Your task to perform on an android device: see tabs open on other devices in the chrome app Image 0: 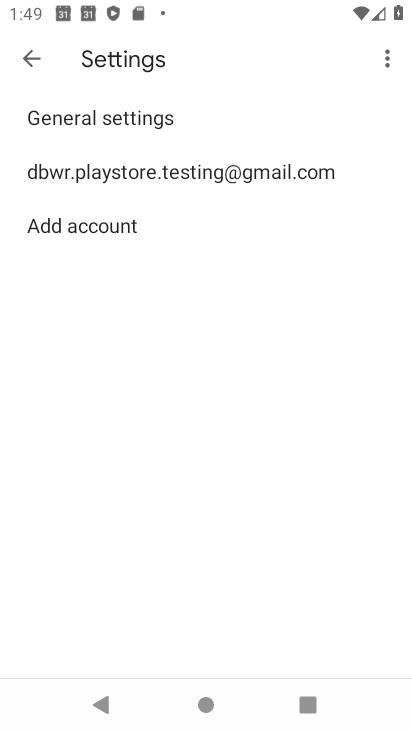
Step 0: press home button
Your task to perform on an android device: see tabs open on other devices in the chrome app Image 1: 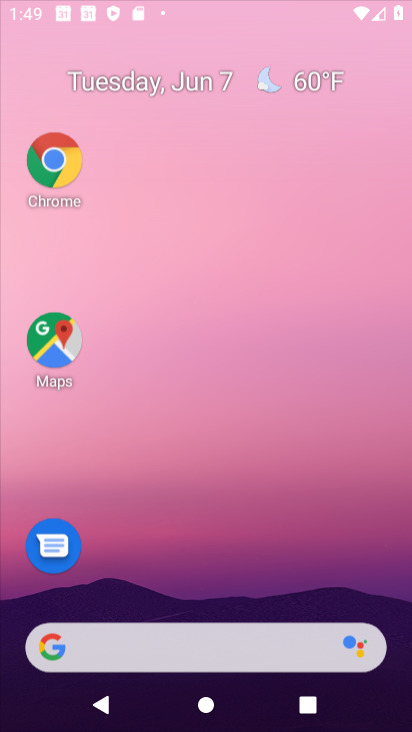
Step 1: drag from (204, 532) to (285, 124)
Your task to perform on an android device: see tabs open on other devices in the chrome app Image 2: 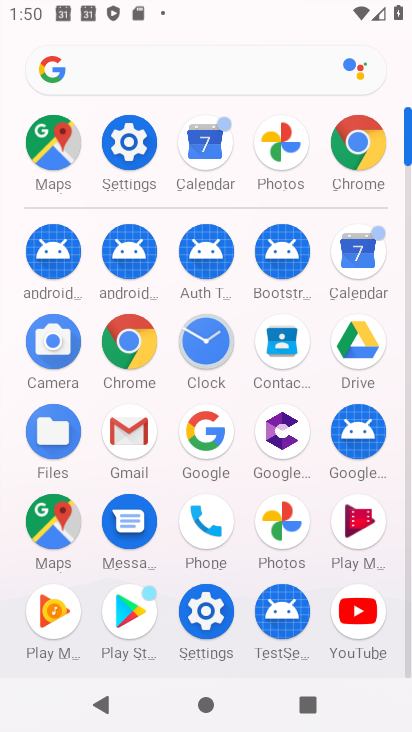
Step 2: click (351, 149)
Your task to perform on an android device: see tabs open on other devices in the chrome app Image 3: 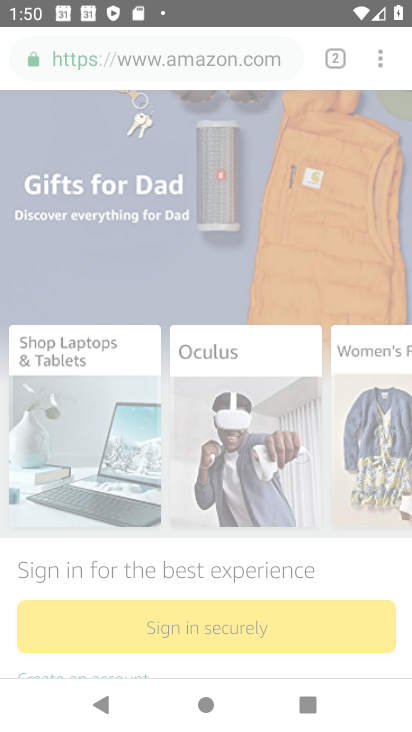
Step 3: task complete